Your task to perform on an android device: turn notification dots on Image 0: 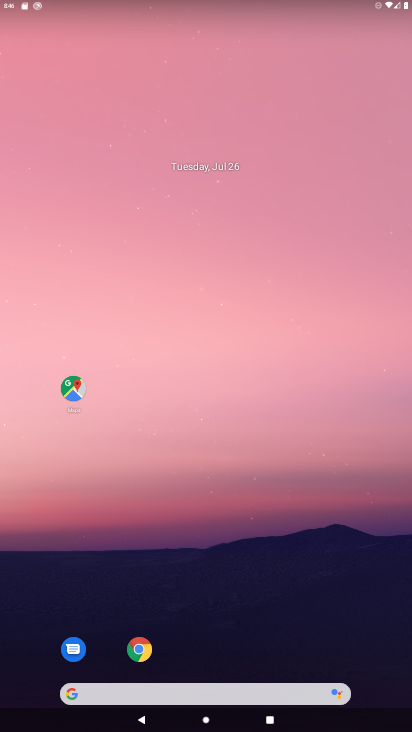
Step 0: drag from (202, 670) to (176, 95)
Your task to perform on an android device: turn notification dots on Image 1: 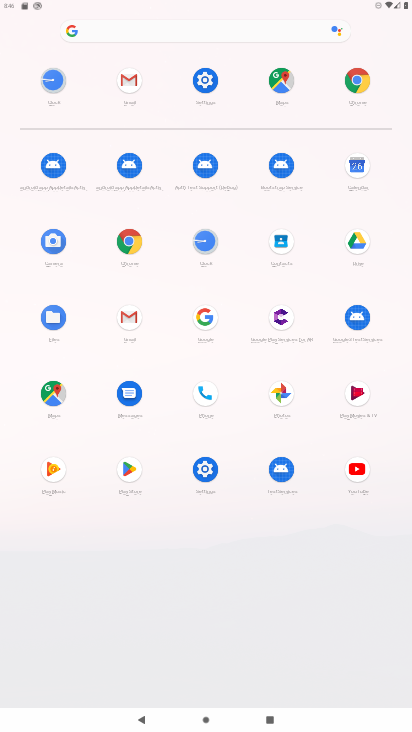
Step 1: click (211, 66)
Your task to perform on an android device: turn notification dots on Image 2: 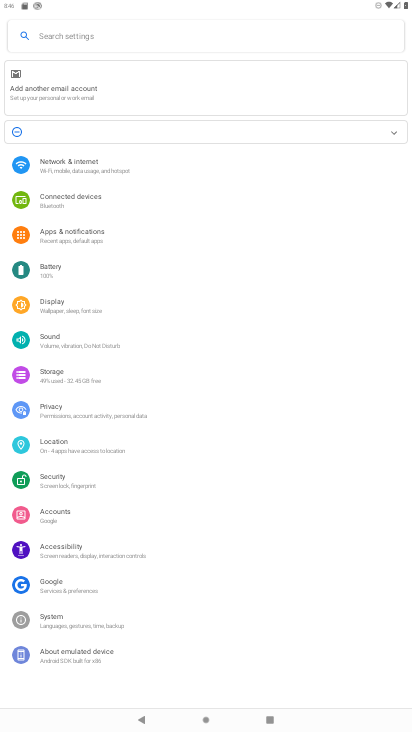
Step 2: click (56, 244)
Your task to perform on an android device: turn notification dots on Image 3: 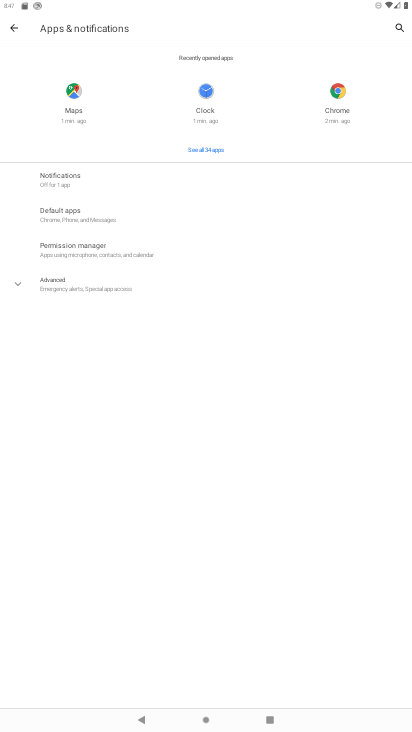
Step 3: click (86, 183)
Your task to perform on an android device: turn notification dots on Image 4: 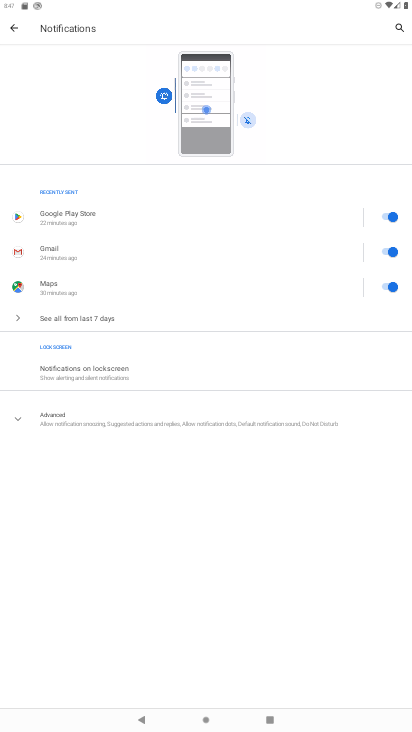
Step 4: click (81, 419)
Your task to perform on an android device: turn notification dots on Image 5: 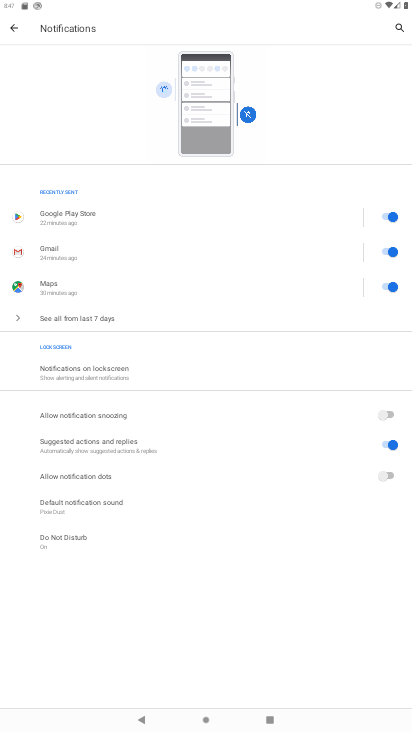
Step 5: click (392, 473)
Your task to perform on an android device: turn notification dots on Image 6: 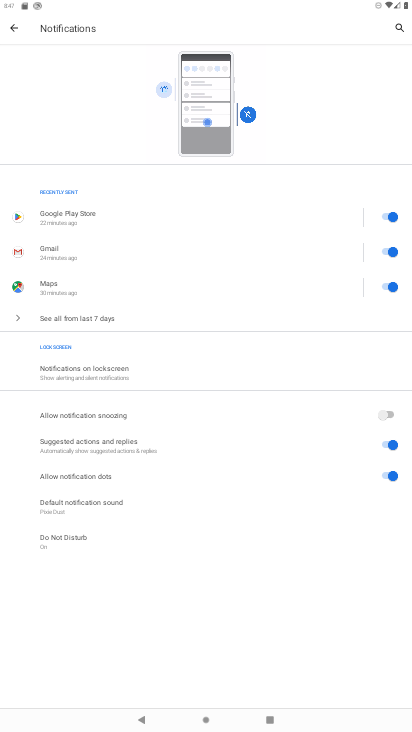
Step 6: task complete